Your task to perform on an android device: open chrome and create a bookmark for the current page Image 0: 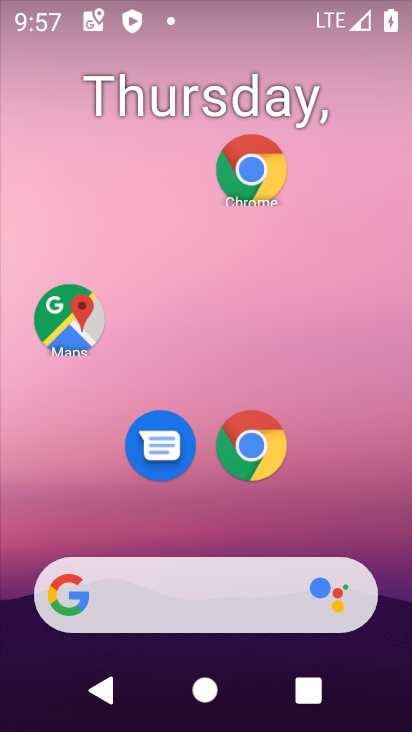
Step 0: click (243, 459)
Your task to perform on an android device: open chrome and create a bookmark for the current page Image 1: 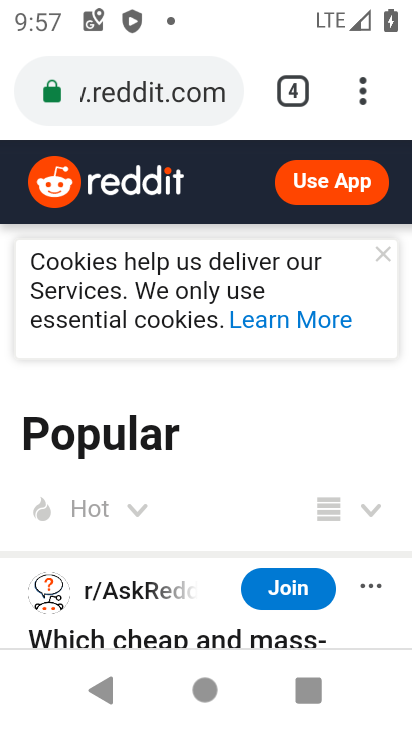
Step 1: click (362, 88)
Your task to perform on an android device: open chrome and create a bookmark for the current page Image 2: 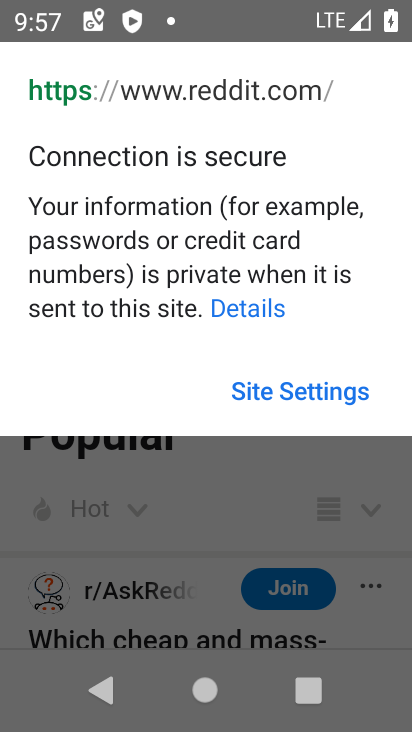
Step 2: click (361, 482)
Your task to perform on an android device: open chrome and create a bookmark for the current page Image 3: 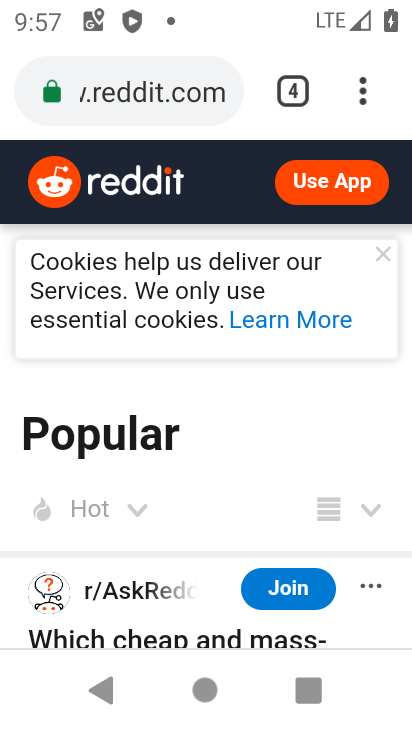
Step 3: task complete